Your task to perform on an android device: Check the news Image 0: 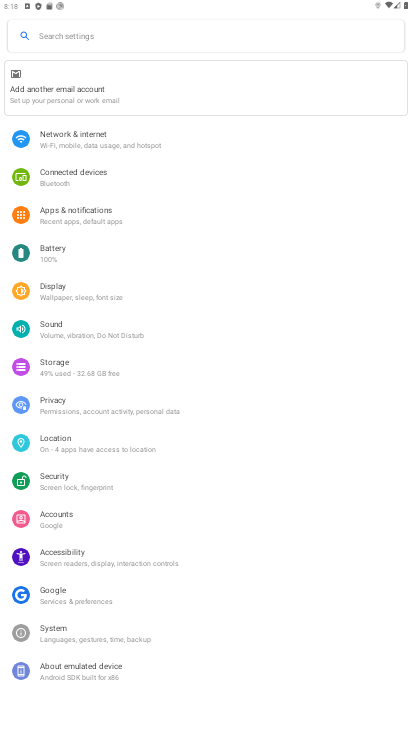
Step 0: press home button
Your task to perform on an android device: Check the news Image 1: 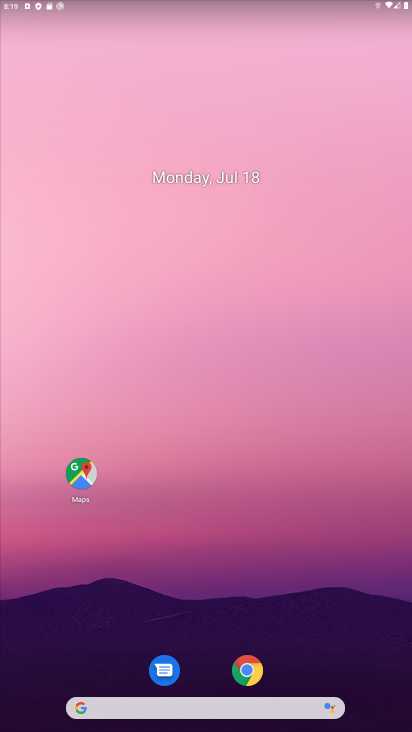
Step 1: click (204, 706)
Your task to perform on an android device: Check the news Image 2: 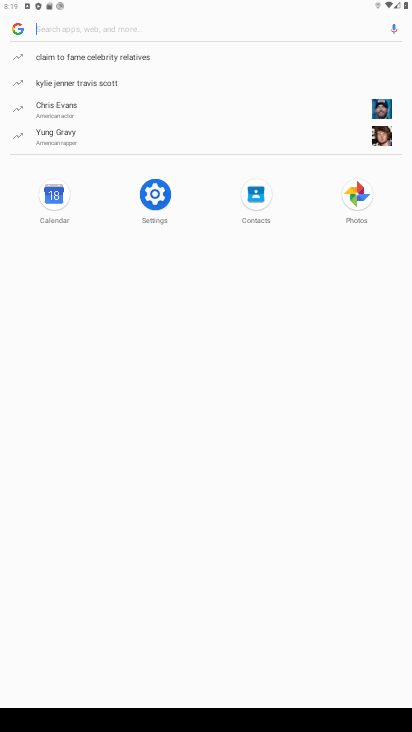
Step 2: type "news"
Your task to perform on an android device: Check the news Image 3: 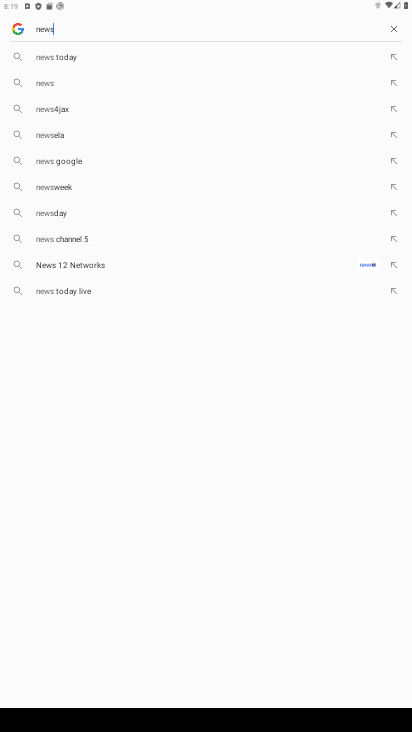
Step 3: click (48, 87)
Your task to perform on an android device: Check the news Image 4: 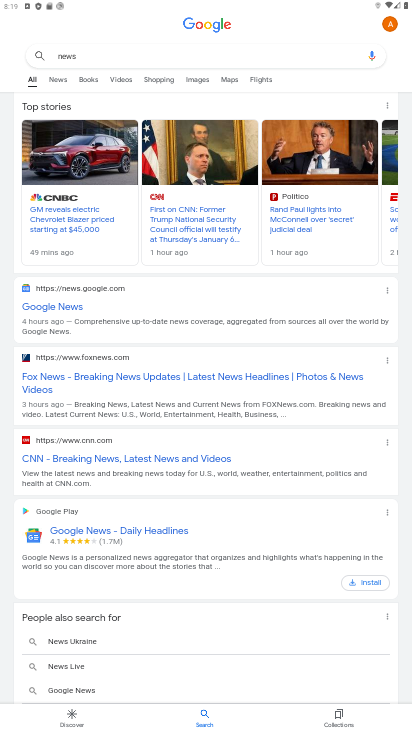
Step 4: task complete